Your task to perform on an android device: turn off smart reply in the gmail app Image 0: 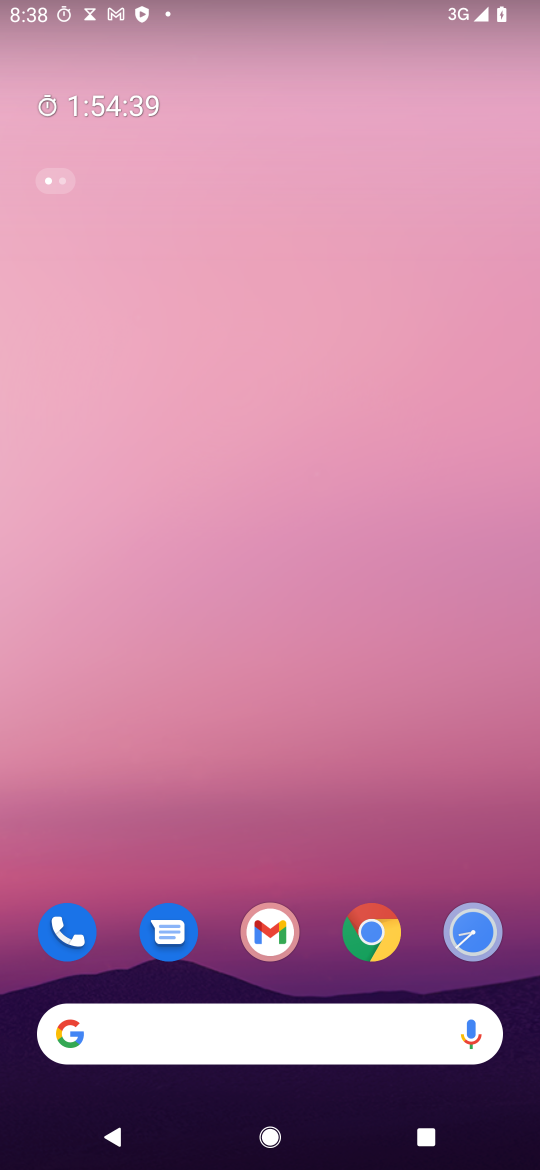
Step 0: drag from (330, 930) to (456, 2)
Your task to perform on an android device: turn off smart reply in the gmail app Image 1: 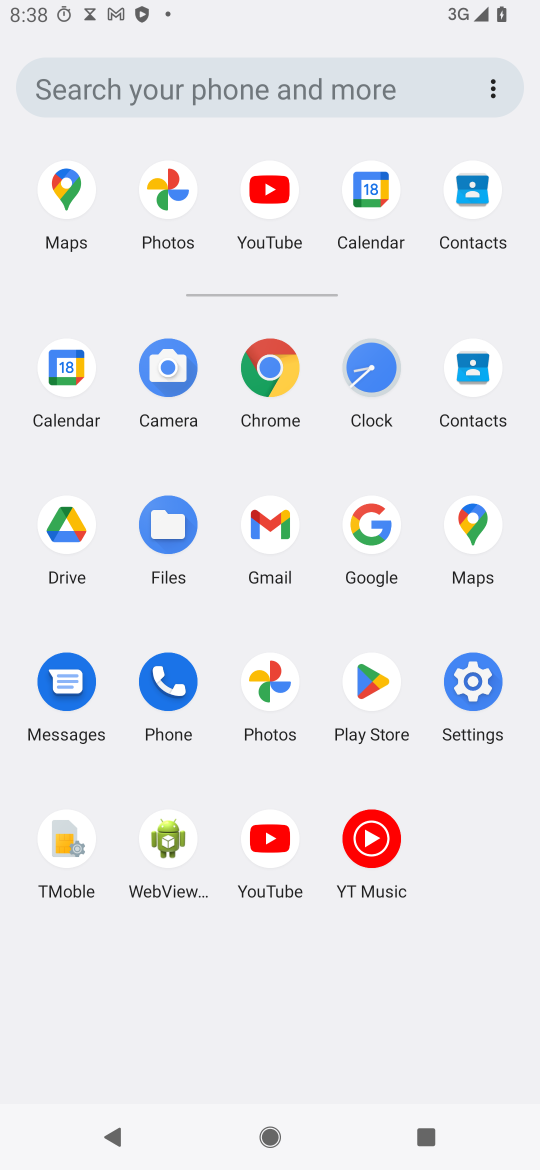
Step 1: click (274, 510)
Your task to perform on an android device: turn off smart reply in the gmail app Image 2: 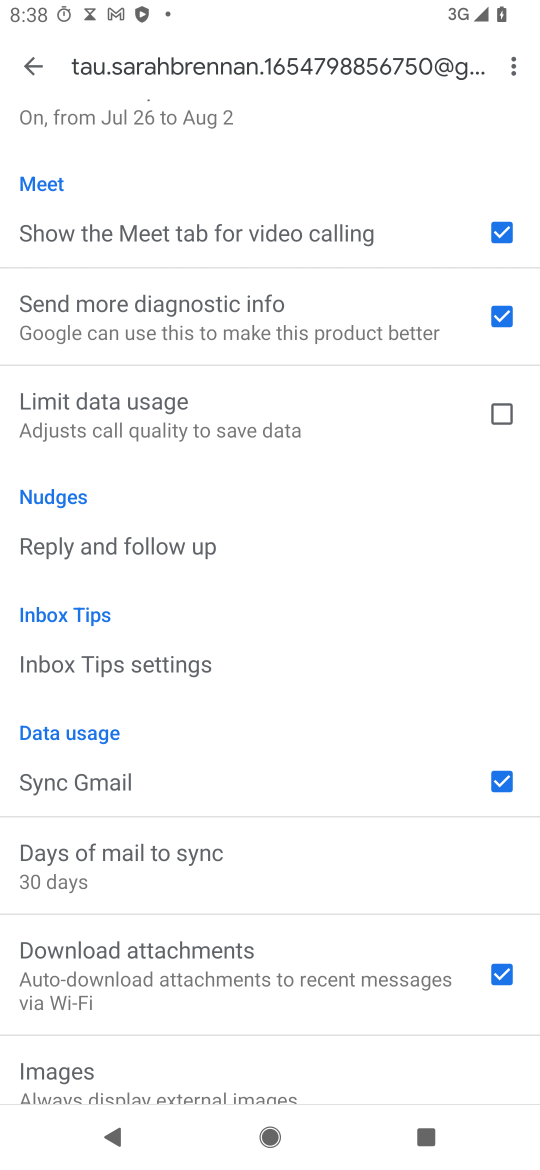
Step 2: drag from (424, 907) to (413, 196)
Your task to perform on an android device: turn off smart reply in the gmail app Image 3: 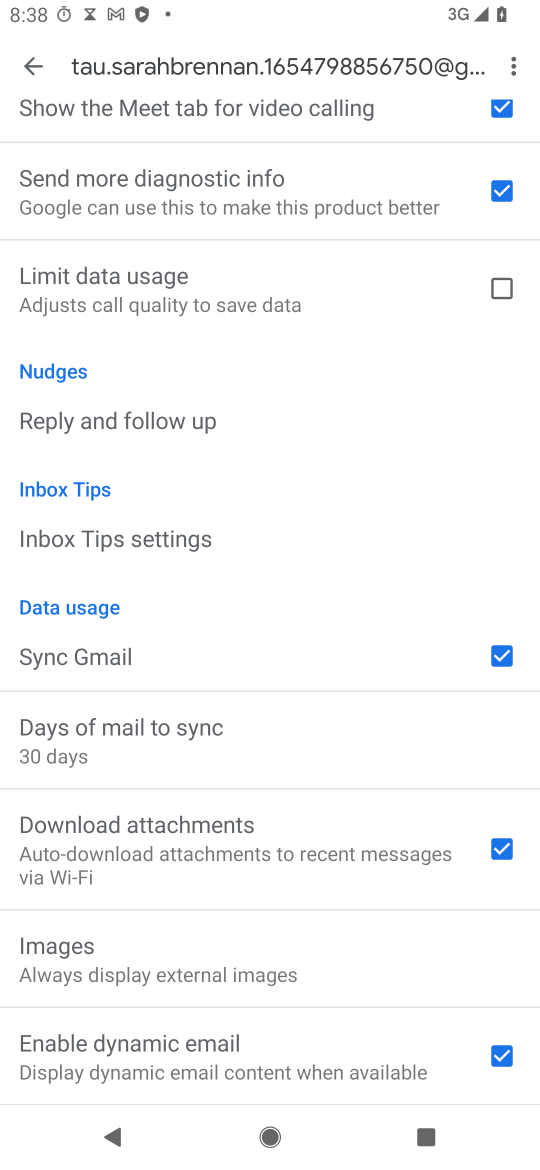
Step 3: drag from (274, 1017) to (263, 307)
Your task to perform on an android device: turn off smart reply in the gmail app Image 4: 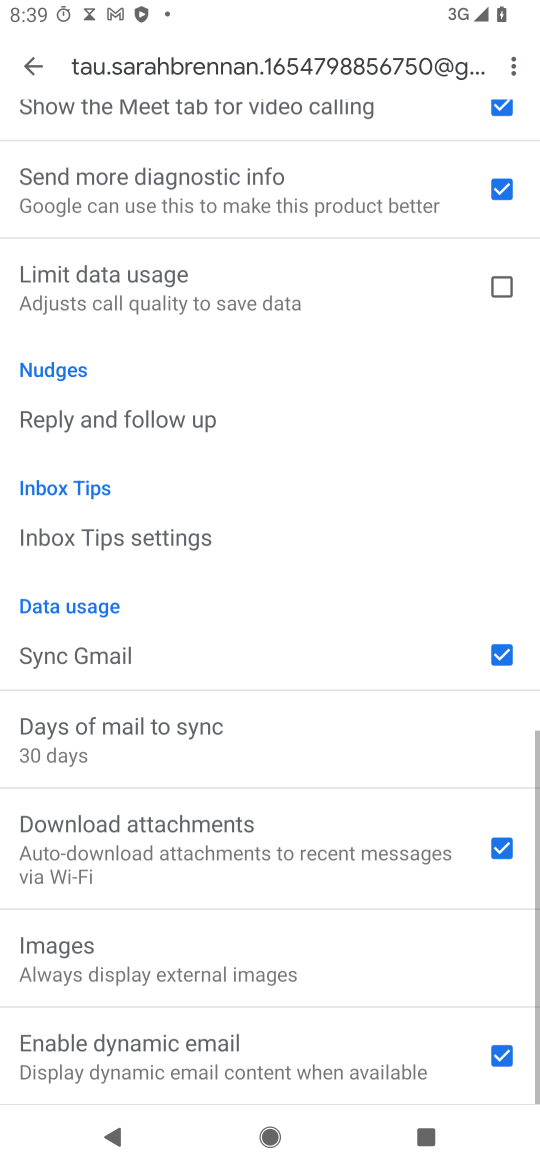
Step 4: drag from (266, 294) to (250, 900)
Your task to perform on an android device: turn off smart reply in the gmail app Image 5: 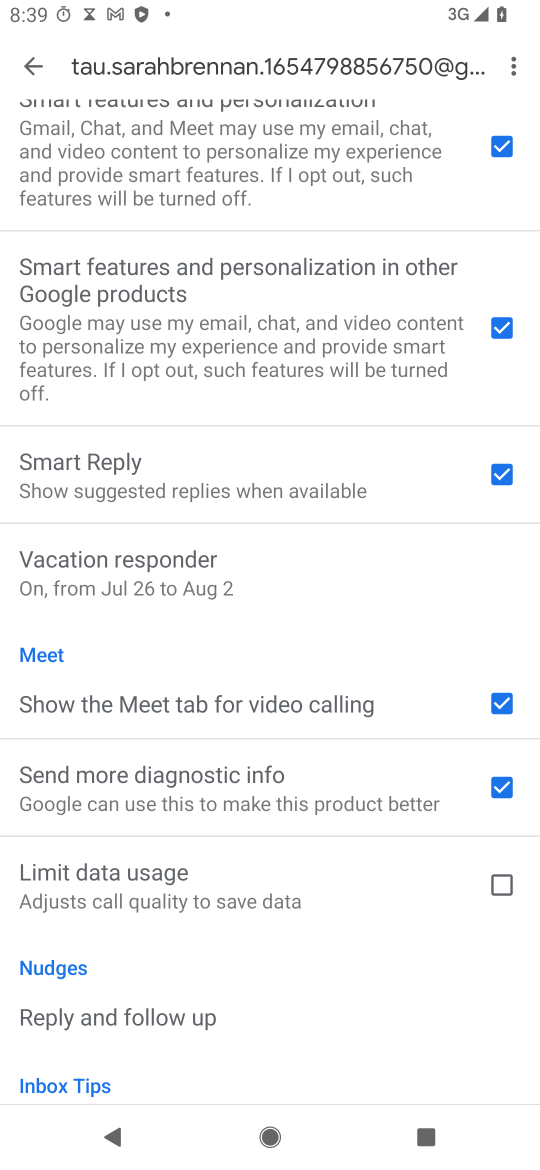
Step 5: click (350, 470)
Your task to perform on an android device: turn off smart reply in the gmail app Image 6: 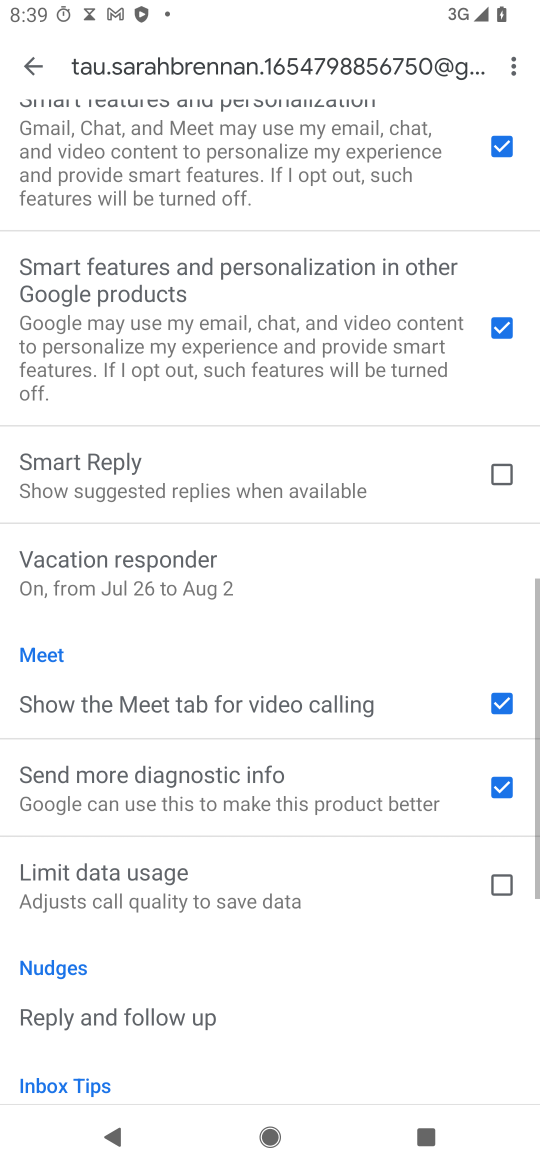
Step 6: task complete